Your task to perform on an android device: Is it going to rain this weekend? Image 0: 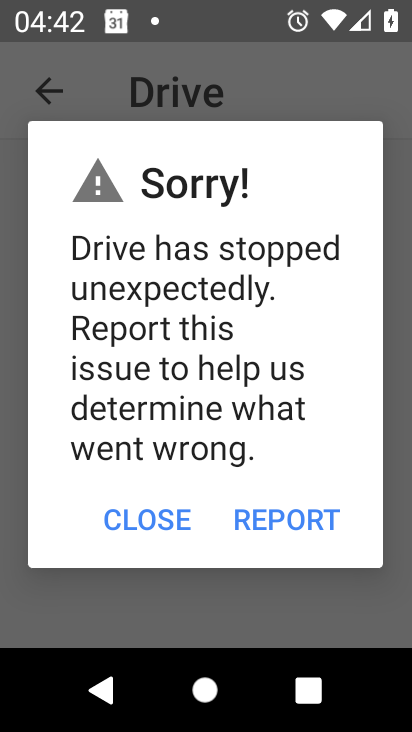
Step 0: press home button
Your task to perform on an android device: Is it going to rain this weekend? Image 1: 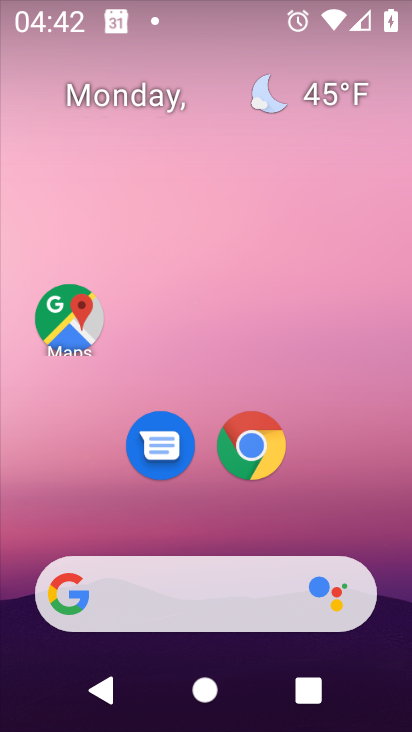
Step 1: click (187, 594)
Your task to perform on an android device: Is it going to rain this weekend? Image 2: 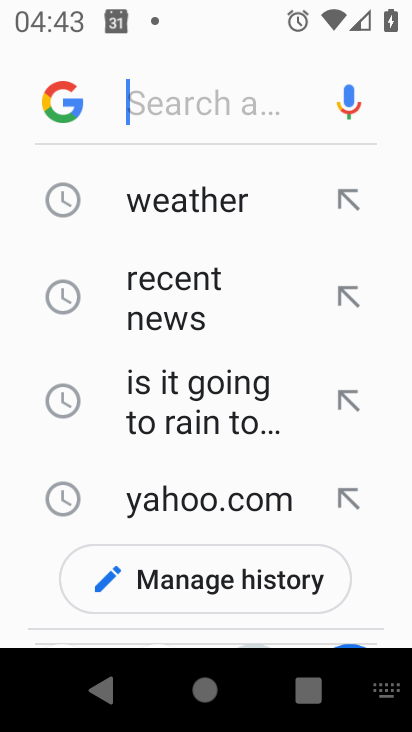
Step 2: type "is it going to rain this weekend"
Your task to perform on an android device: Is it going to rain this weekend? Image 3: 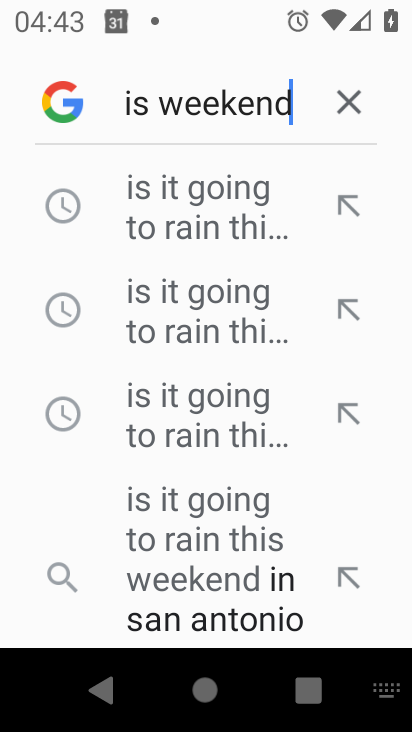
Step 3: click (130, 184)
Your task to perform on an android device: Is it going to rain this weekend? Image 4: 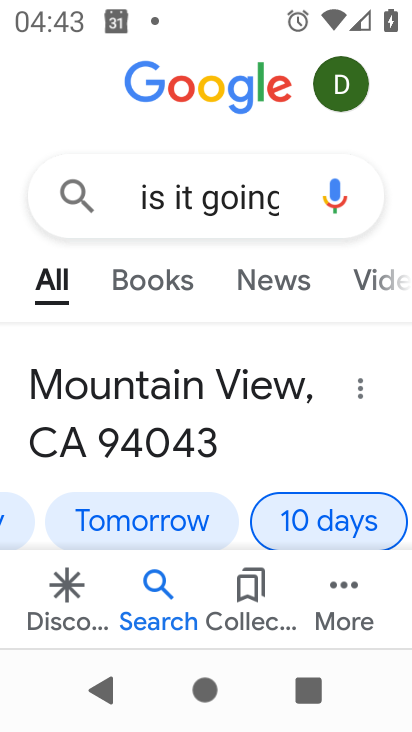
Step 4: task complete